Your task to perform on an android device: Go to network settings Image 0: 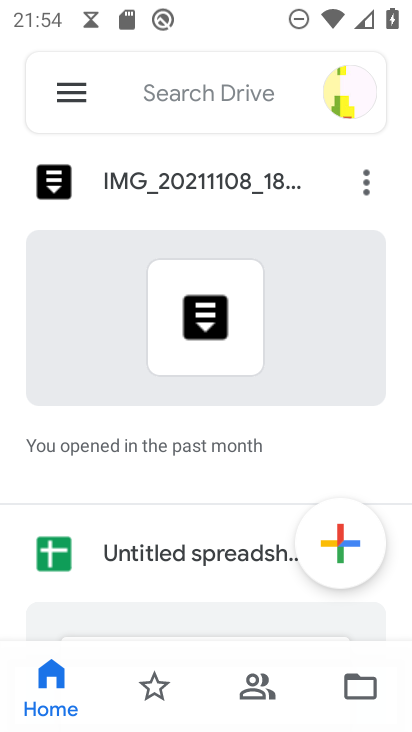
Step 0: press home button
Your task to perform on an android device: Go to network settings Image 1: 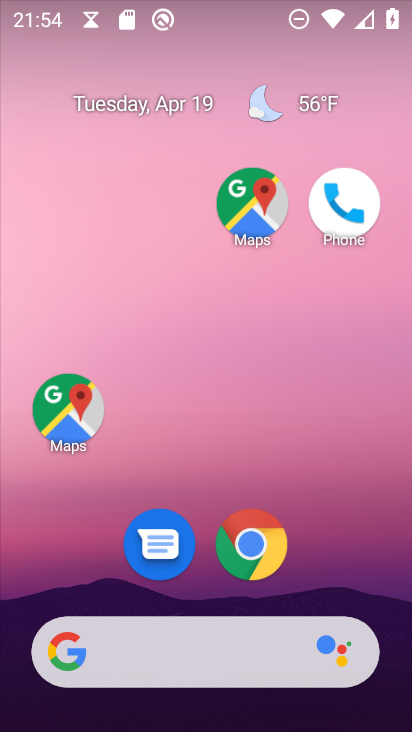
Step 1: drag from (143, 648) to (375, 22)
Your task to perform on an android device: Go to network settings Image 2: 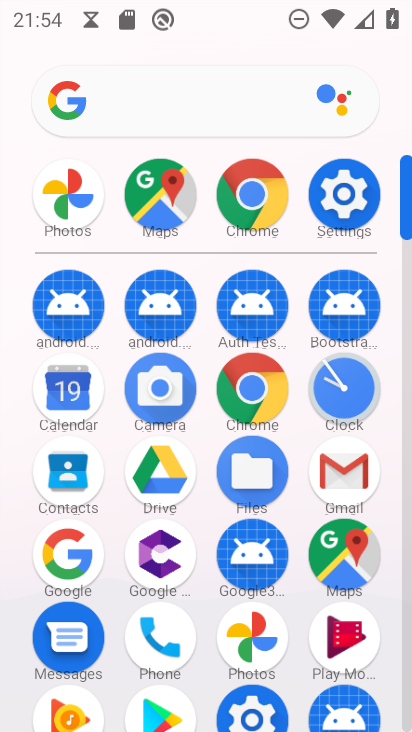
Step 2: click (354, 203)
Your task to perform on an android device: Go to network settings Image 3: 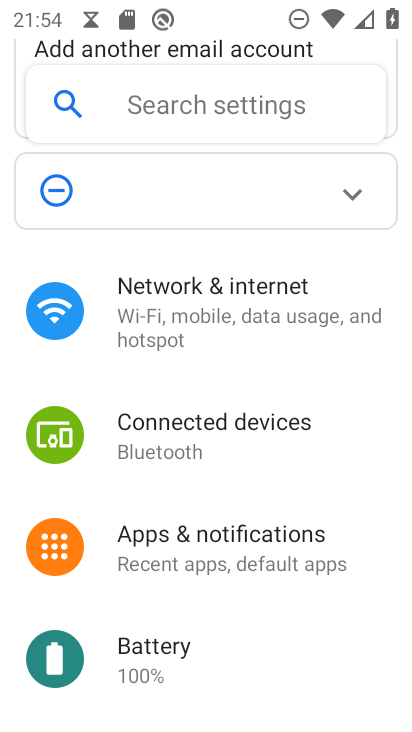
Step 3: click (241, 296)
Your task to perform on an android device: Go to network settings Image 4: 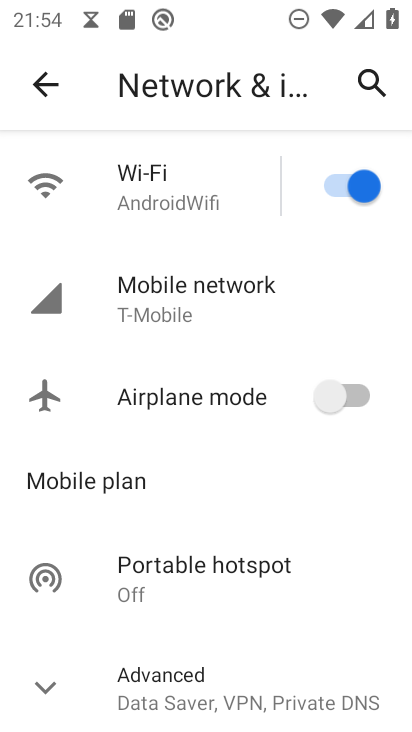
Step 4: task complete